Your task to perform on an android device: clear history in the chrome app Image 0: 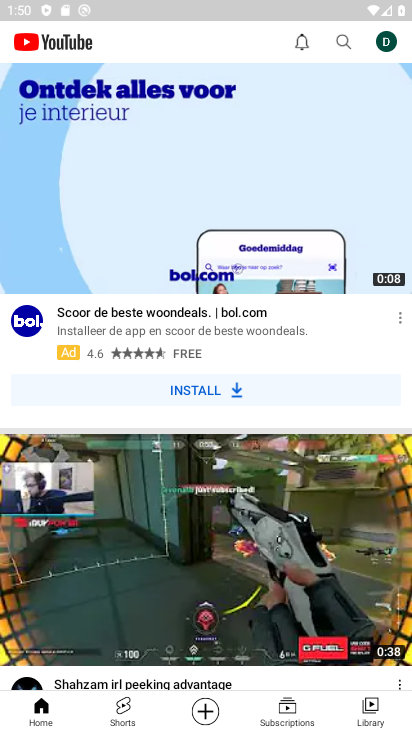
Step 0: press home button
Your task to perform on an android device: clear history in the chrome app Image 1: 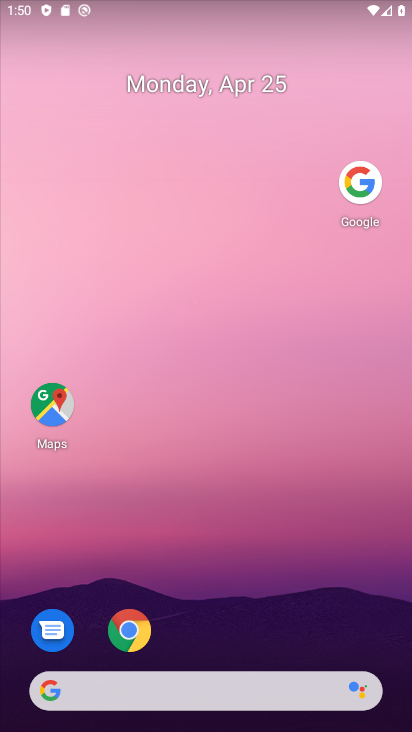
Step 1: drag from (225, 655) to (195, 86)
Your task to perform on an android device: clear history in the chrome app Image 2: 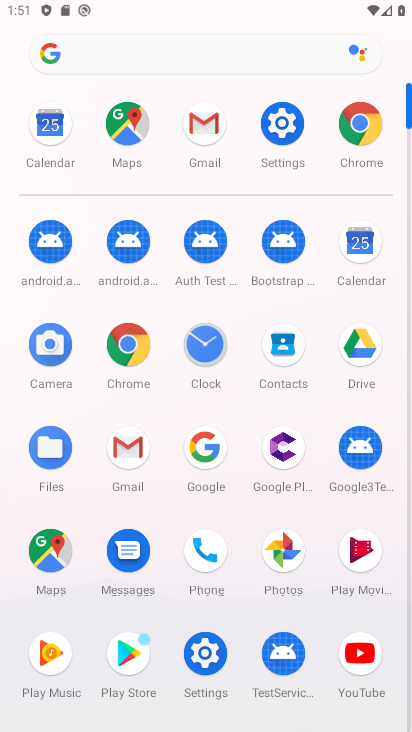
Step 2: click (128, 349)
Your task to perform on an android device: clear history in the chrome app Image 3: 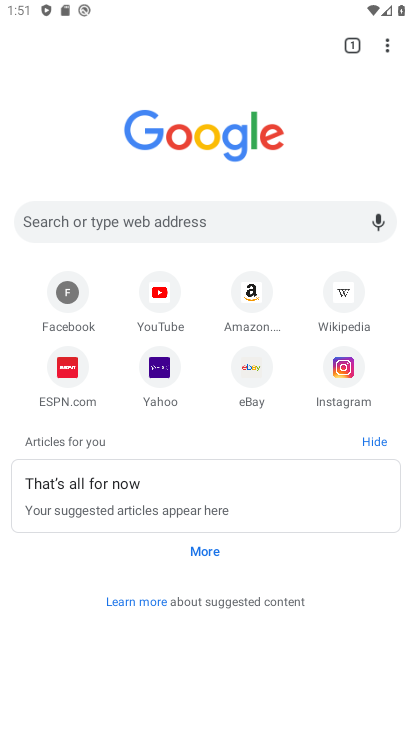
Step 3: task complete